Your task to perform on an android device: delete browsing data in the chrome app Image 0: 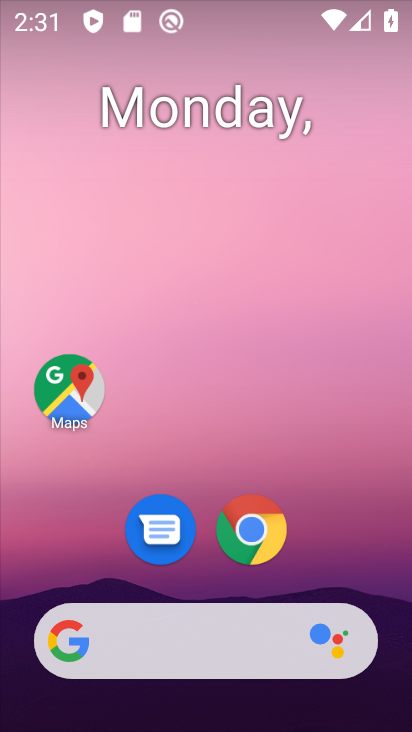
Step 0: drag from (336, 544) to (372, 175)
Your task to perform on an android device: delete browsing data in the chrome app Image 1: 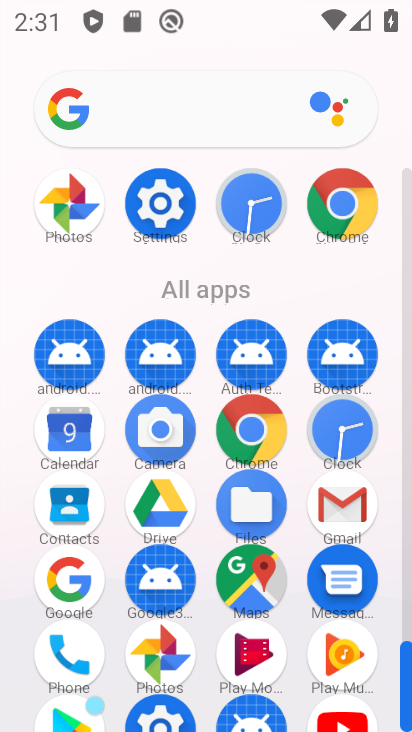
Step 1: click (257, 430)
Your task to perform on an android device: delete browsing data in the chrome app Image 2: 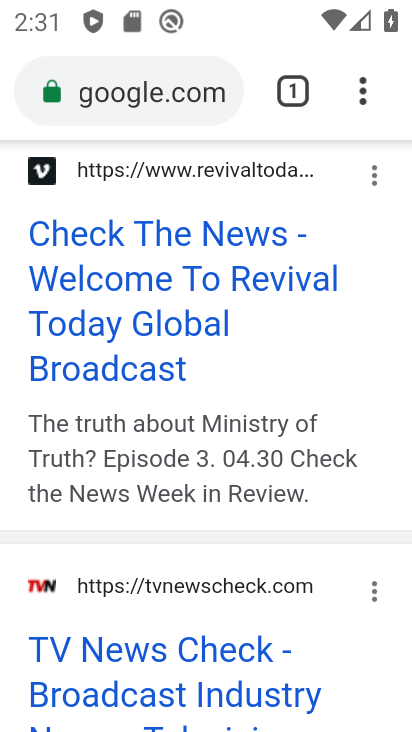
Step 2: drag from (279, 235) to (283, 559)
Your task to perform on an android device: delete browsing data in the chrome app Image 3: 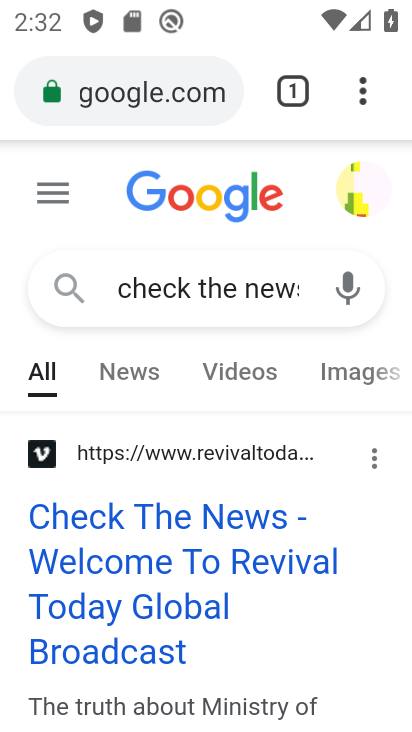
Step 3: drag from (369, 103) to (86, 517)
Your task to perform on an android device: delete browsing data in the chrome app Image 4: 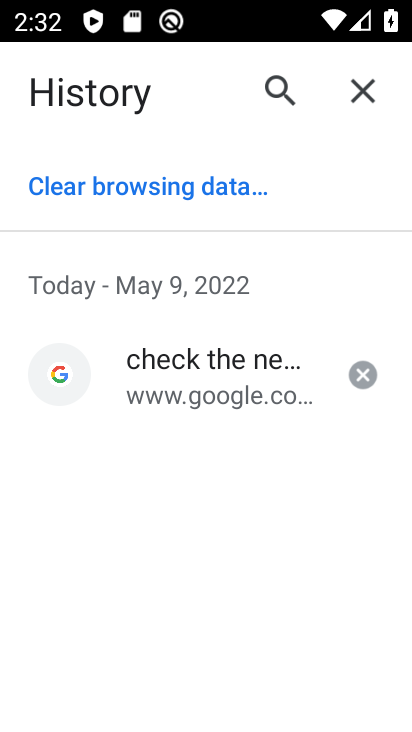
Step 4: click (174, 154)
Your task to perform on an android device: delete browsing data in the chrome app Image 5: 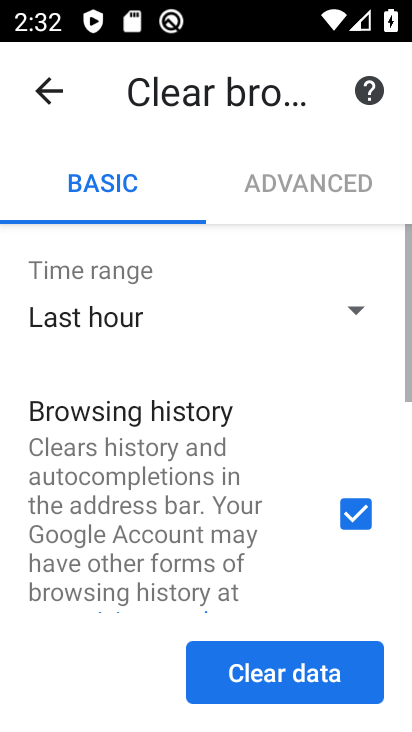
Step 5: click (315, 642)
Your task to perform on an android device: delete browsing data in the chrome app Image 6: 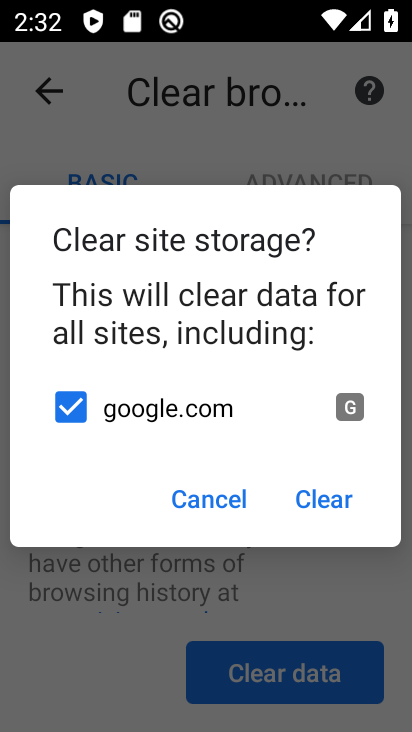
Step 6: click (339, 499)
Your task to perform on an android device: delete browsing data in the chrome app Image 7: 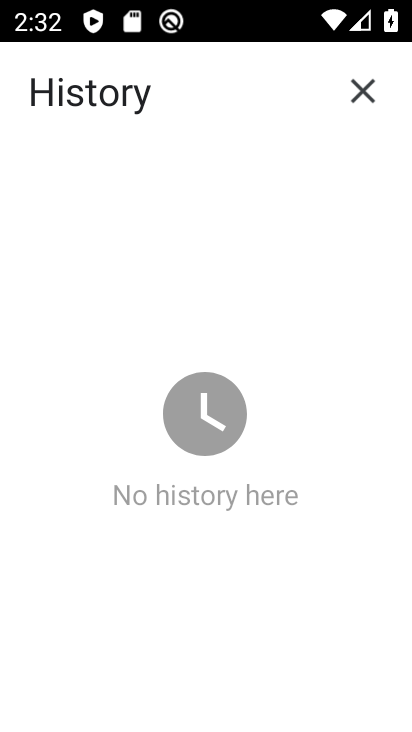
Step 7: task complete